Your task to perform on an android device: Go to Wikipedia Image 0: 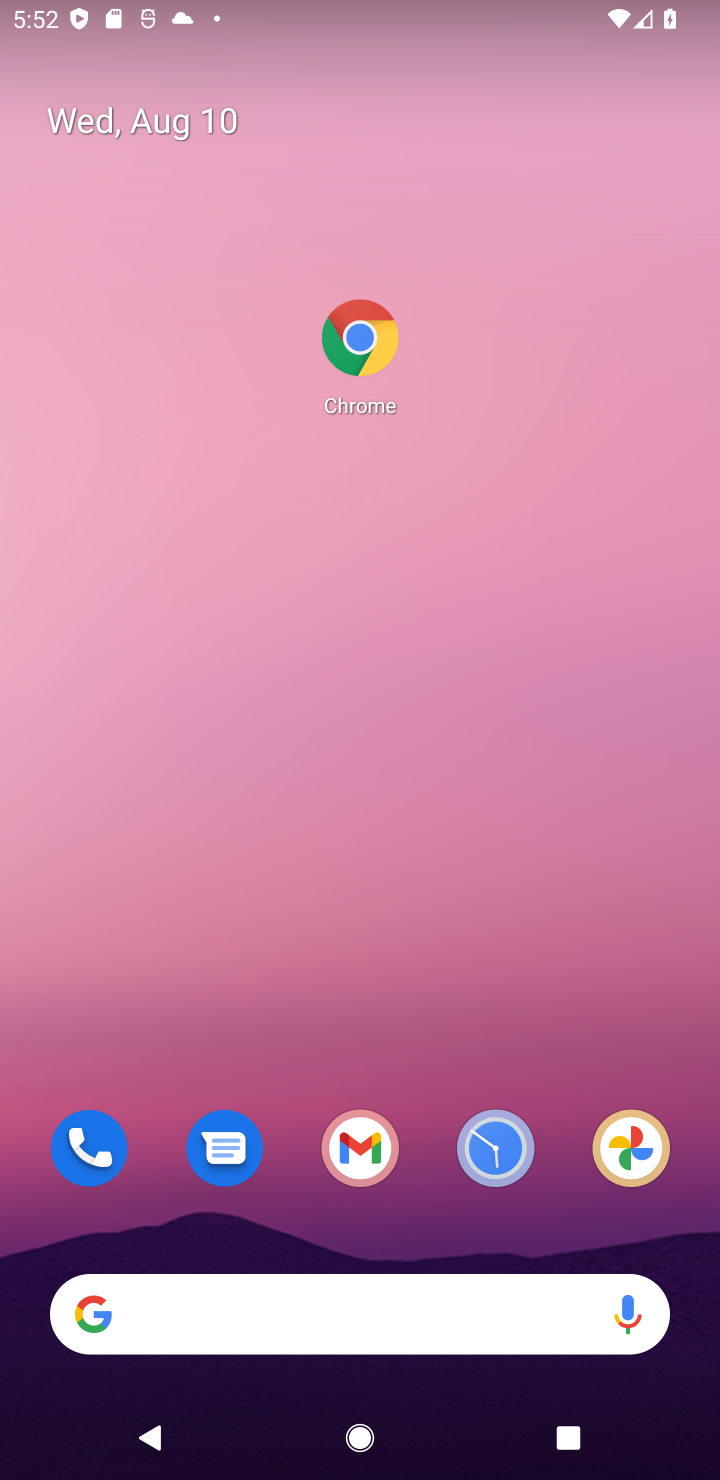
Step 0: drag from (296, 1201) to (399, 592)
Your task to perform on an android device: Go to Wikipedia Image 1: 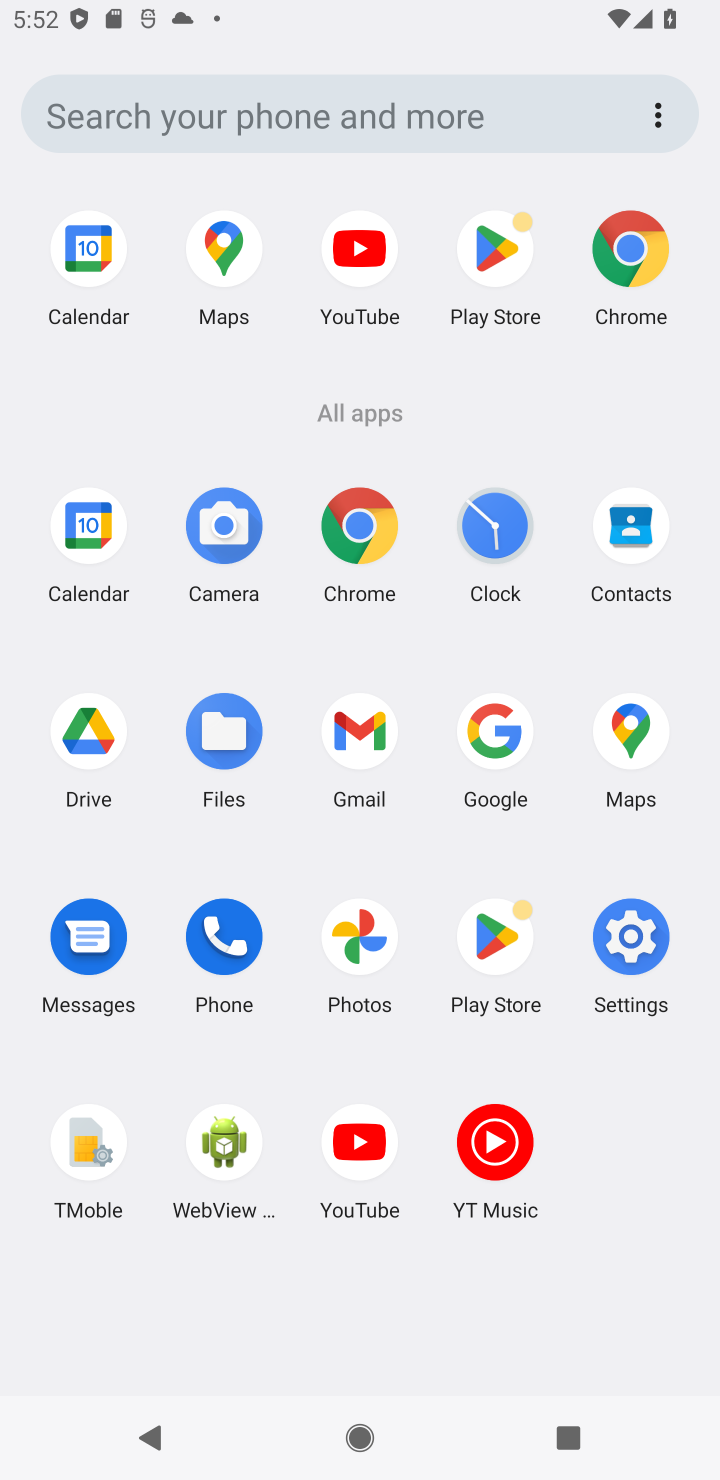
Step 1: click (356, 524)
Your task to perform on an android device: Go to Wikipedia Image 2: 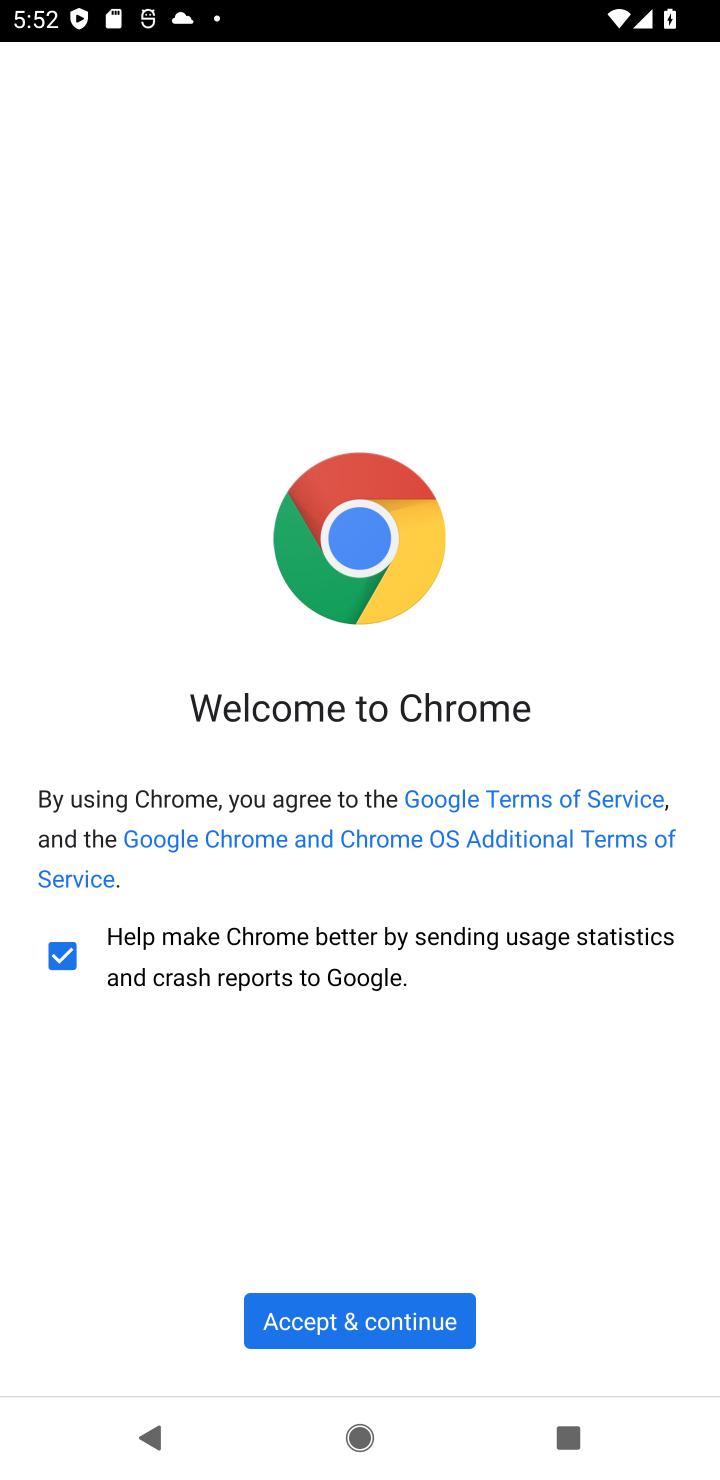
Step 2: click (406, 1326)
Your task to perform on an android device: Go to Wikipedia Image 3: 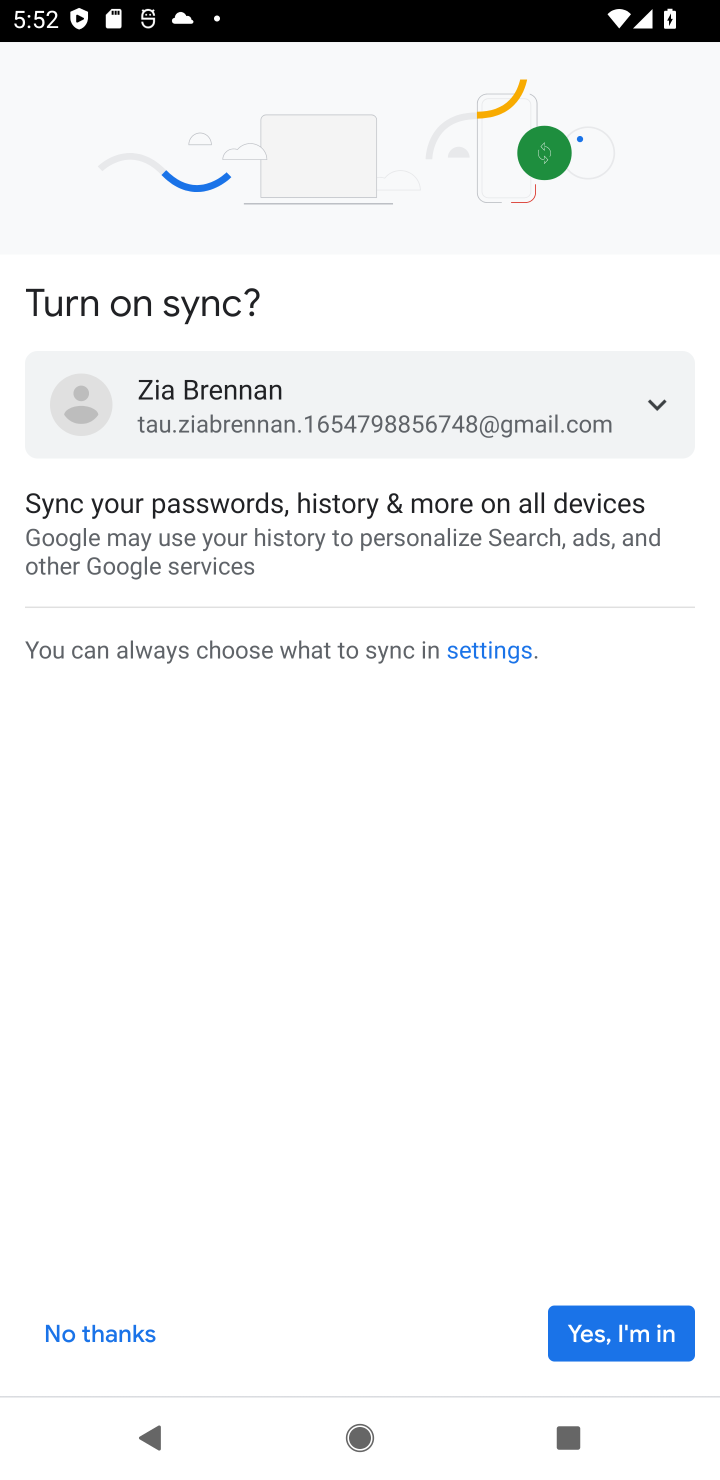
Step 3: click (585, 1322)
Your task to perform on an android device: Go to Wikipedia Image 4: 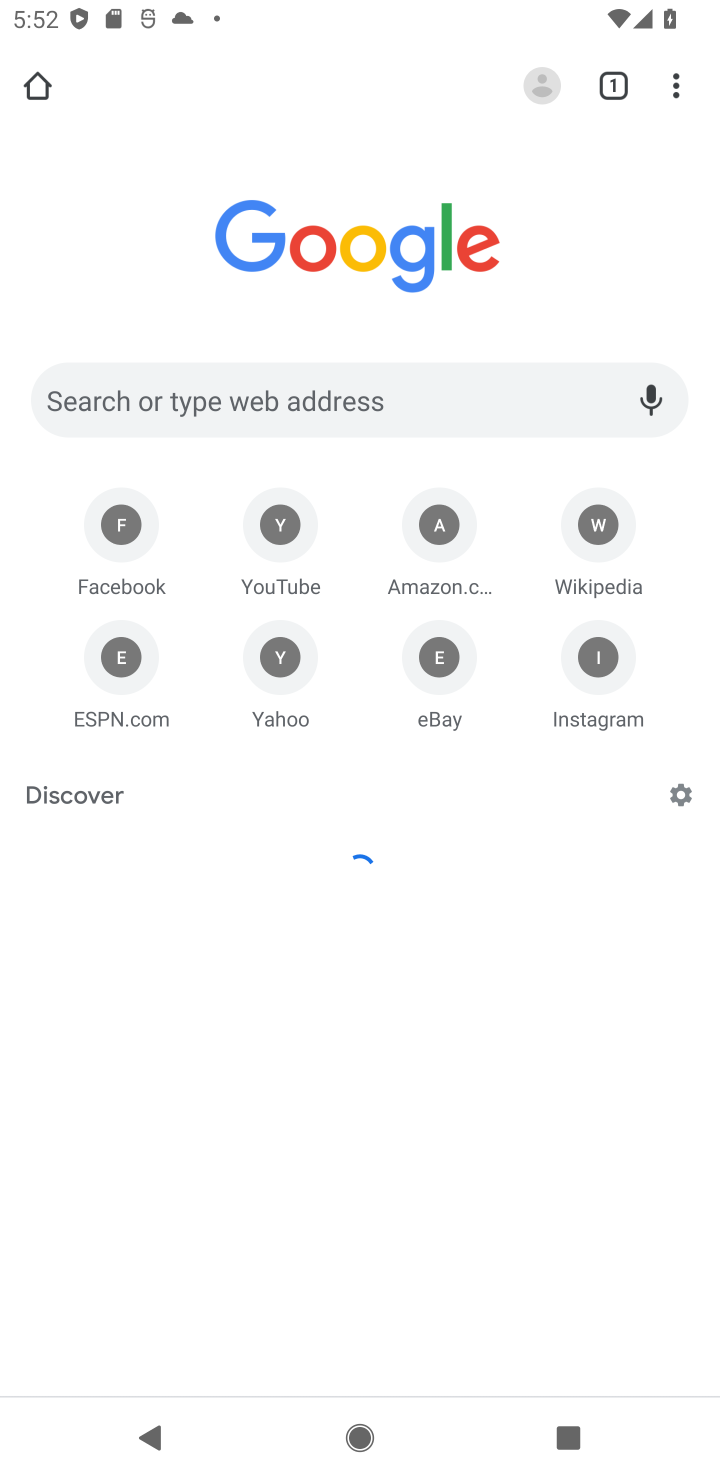
Step 4: click (610, 1331)
Your task to perform on an android device: Go to Wikipedia Image 5: 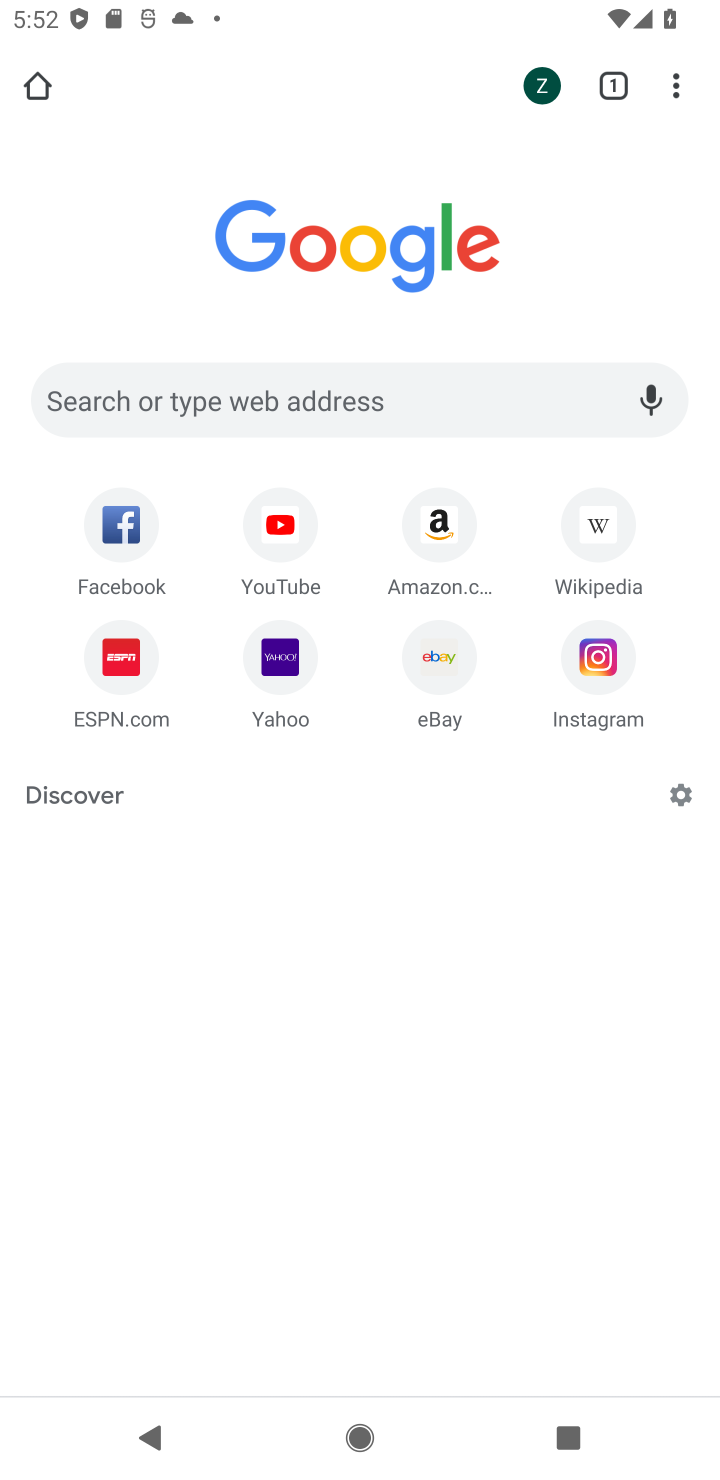
Step 5: click (597, 518)
Your task to perform on an android device: Go to Wikipedia Image 6: 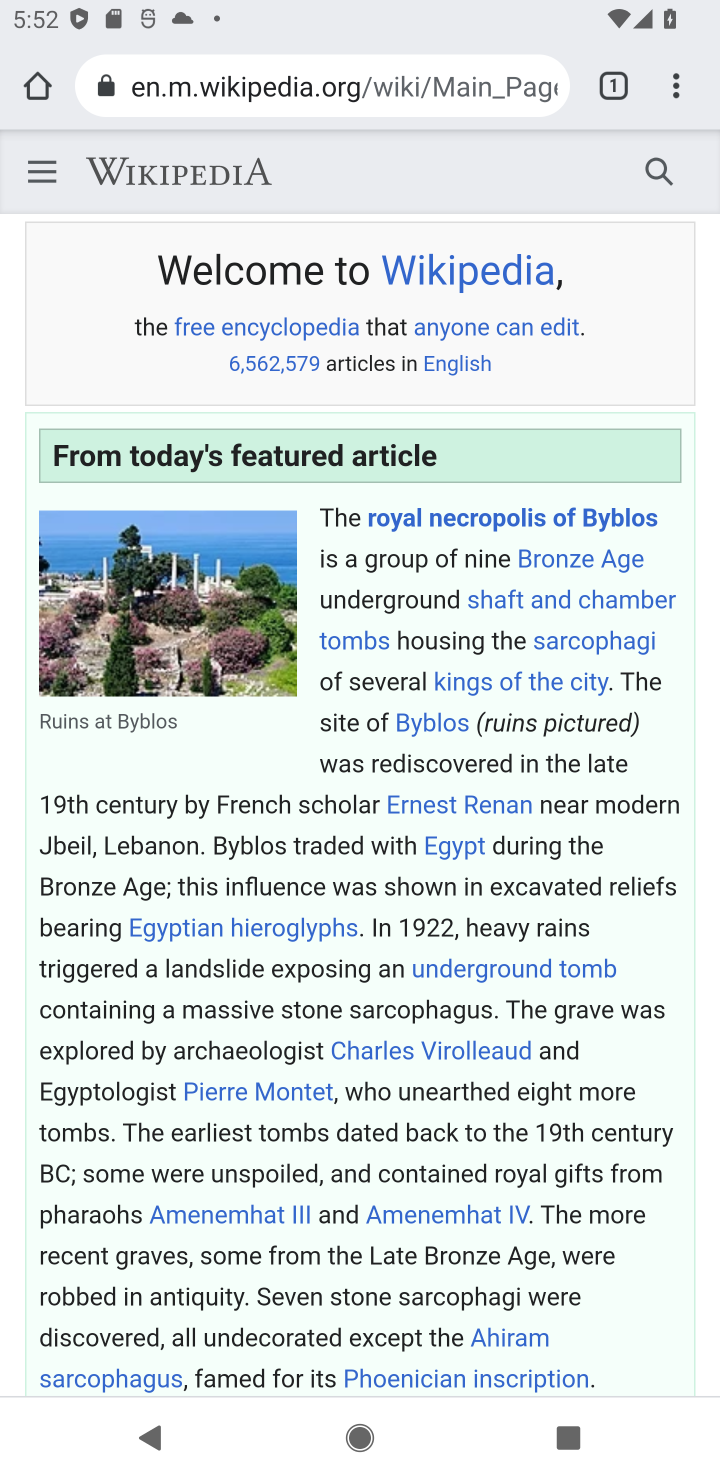
Step 6: task complete